Your task to perform on an android device: open app "Venmo" (install if not already installed) and enter user name: "bleedings@gmail.com" and password: "copied" Image 0: 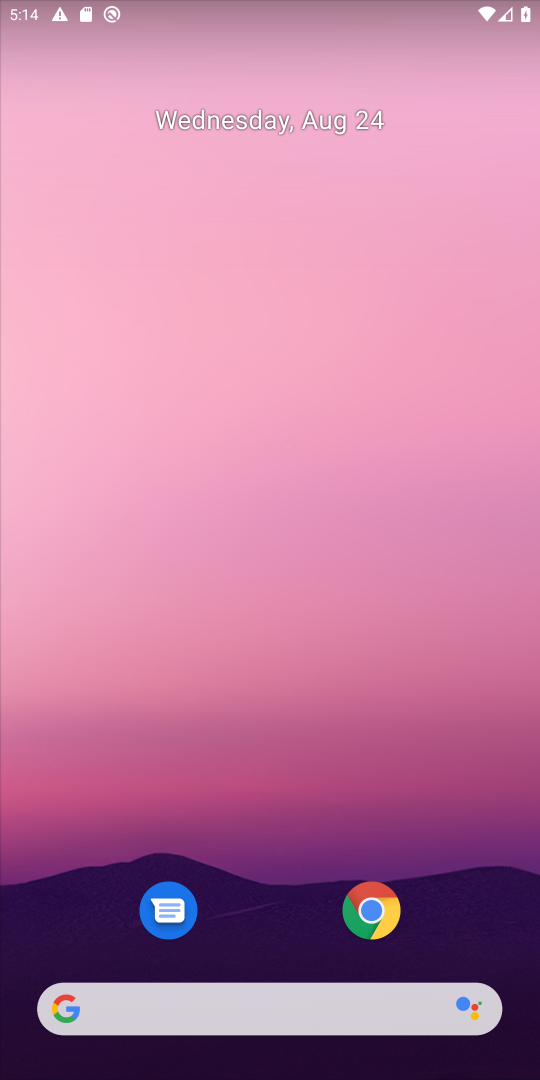
Step 0: drag from (276, 543) to (181, 136)
Your task to perform on an android device: open app "Venmo" (install if not already installed) and enter user name: "bleedings@gmail.com" and password: "copied" Image 1: 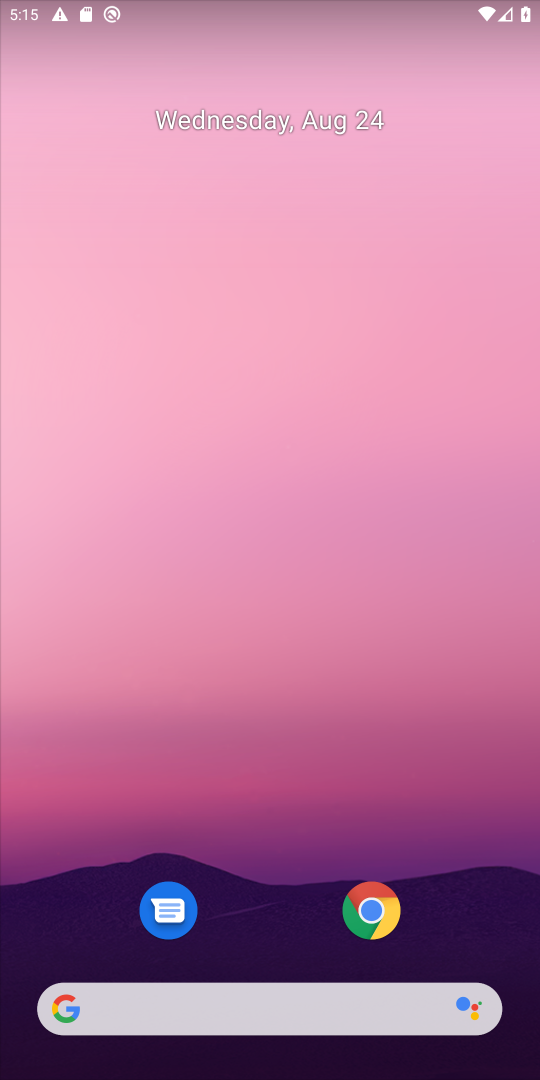
Step 1: drag from (248, 1010) to (187, 39)
Your task to perform on an android device: open app "Venmo" (install if not already installed) and enter user name: "bleedings@gmail.com" and password: "copied" Image 2: 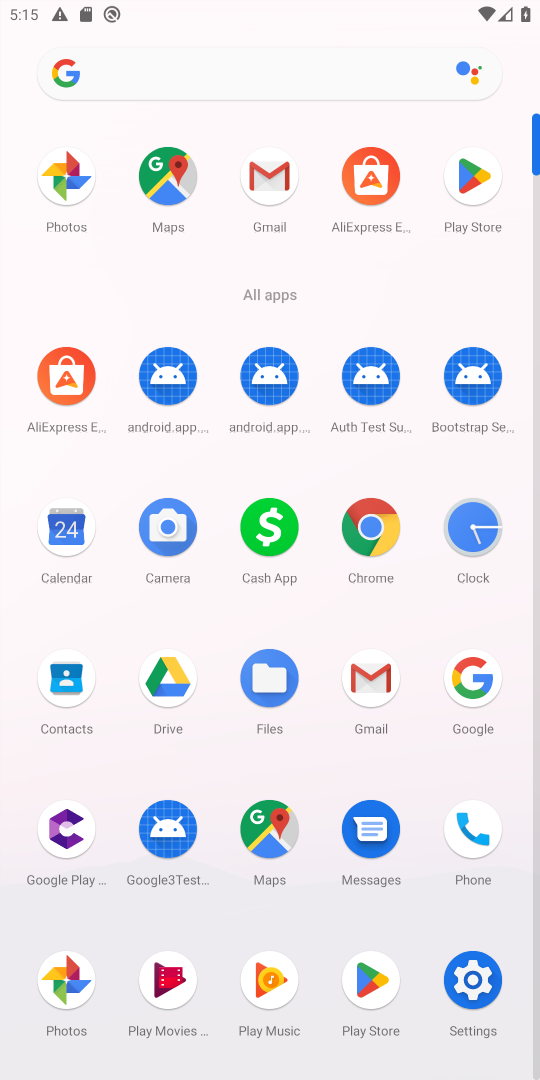
Step 2: click (478, 179)
Your task to perform on an android device: open app "Venmo" (install if not already installed) and enter user name: "bleedings@gmail.com" and password: "copied" Image 3: 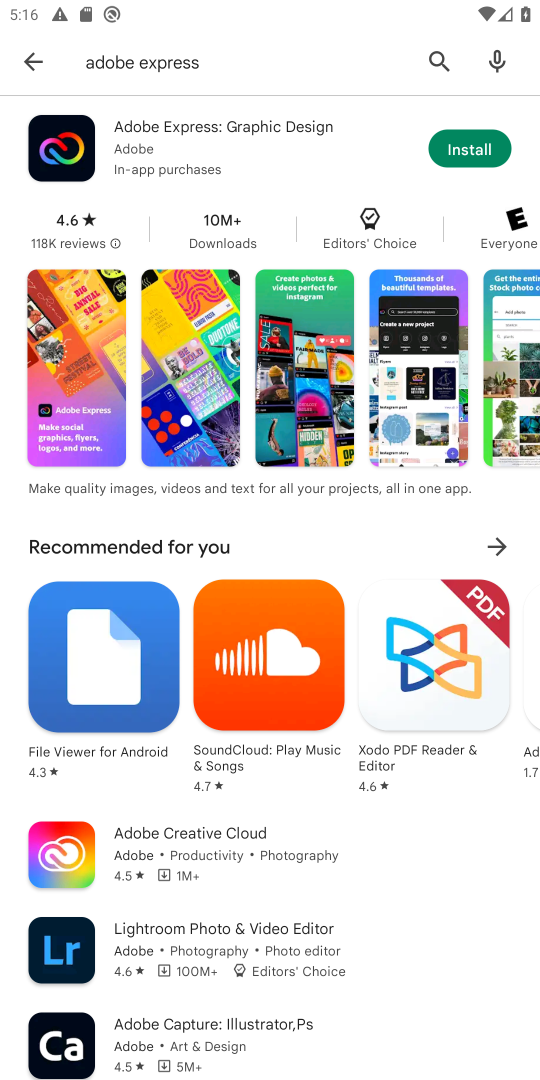
Step 3: click (432, 46)
Your task to perform on an android device: open app "Venmo" (install if not already installed) and enter user name: "bleedings@gmail.com" and password: "copied" Image 4: 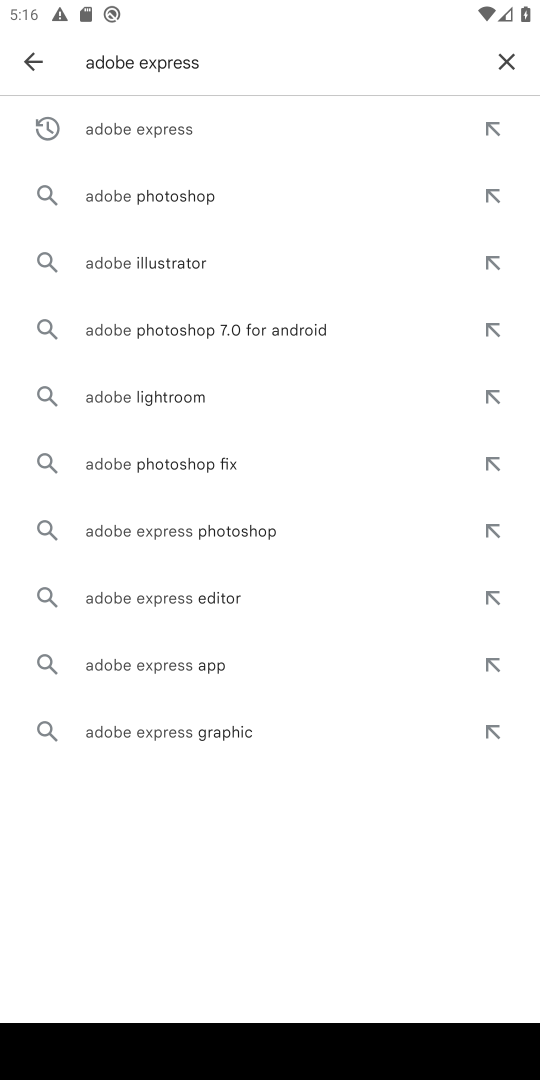
Step 4: click (515, 51)
Your task to perform on an android device: open app "Venmo" (install if not already installed) and enter user name: "bleedings@gmail.com" and password: "copied" Image 5: 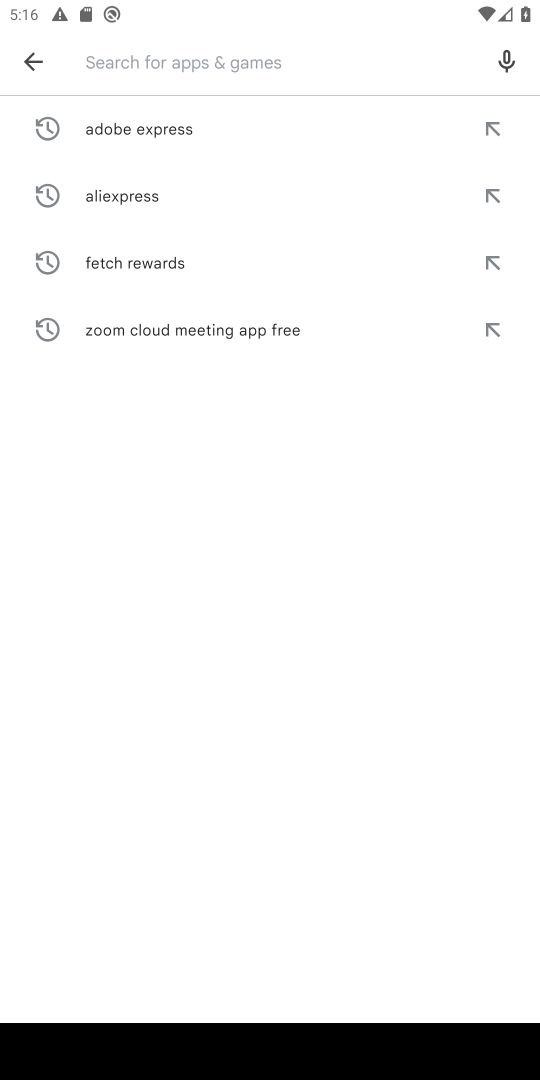
Step 5: type "venmo"
Your task to perform on an android device: open app "Venmo" (install if not already installed) and enter user name: "bleedings@gmail.com" and password: "copied" Image 6: 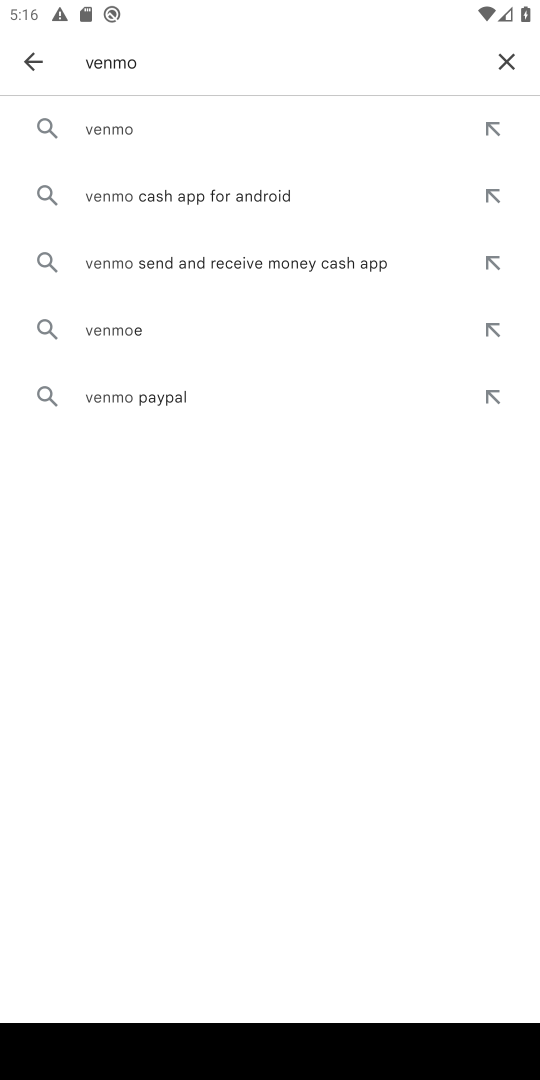
Step 6: click (146, 133)
Your task to perform on an android device: open app "Venmo" (install if not already installed) and enter user name: "bleedings@gmail.com" and password: "copied" Image 7: 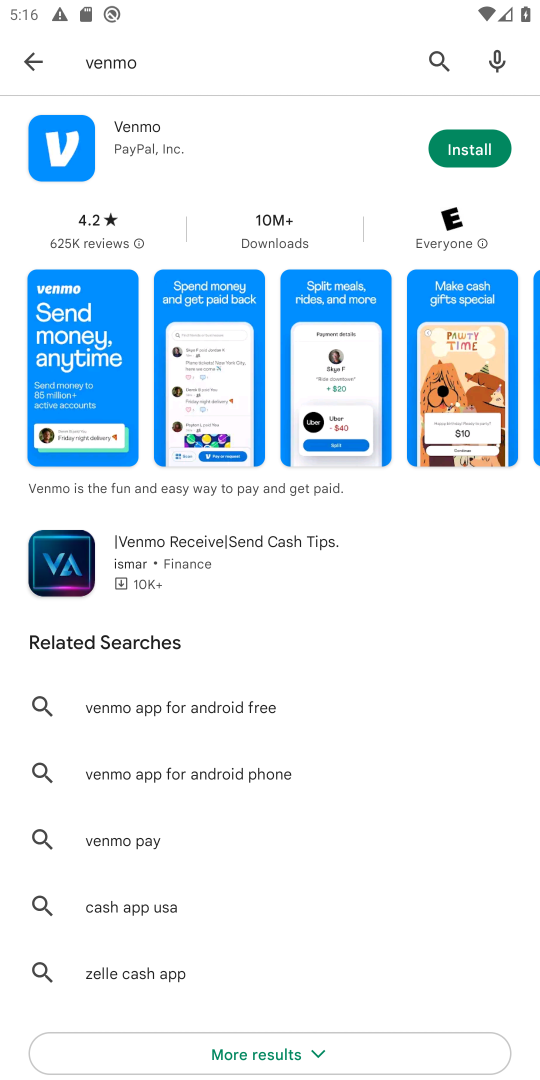
Step 7: click (455, 152)
Your task to perform on an android device: open app "Venmo" (install if not already installed) and enter user name: "bleedings@gmail.com" and password: "copied" Image 8: 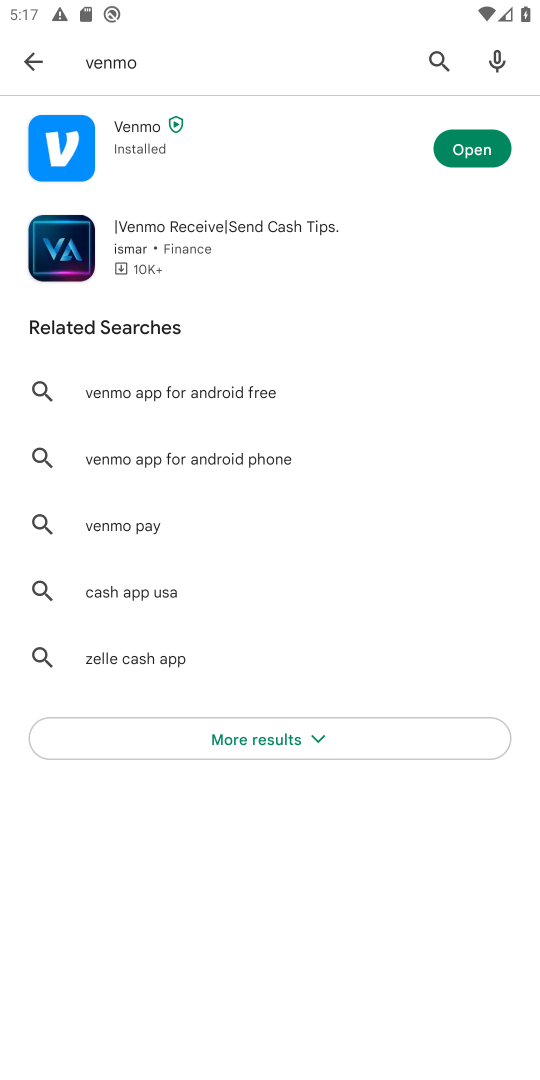
Step 8: click (459, 143)
Your task to perform on an android device: open app "Venmo" (install if not already installed) and enter user name: "bleedings@gmail.com" and password: "copied" Image 9: 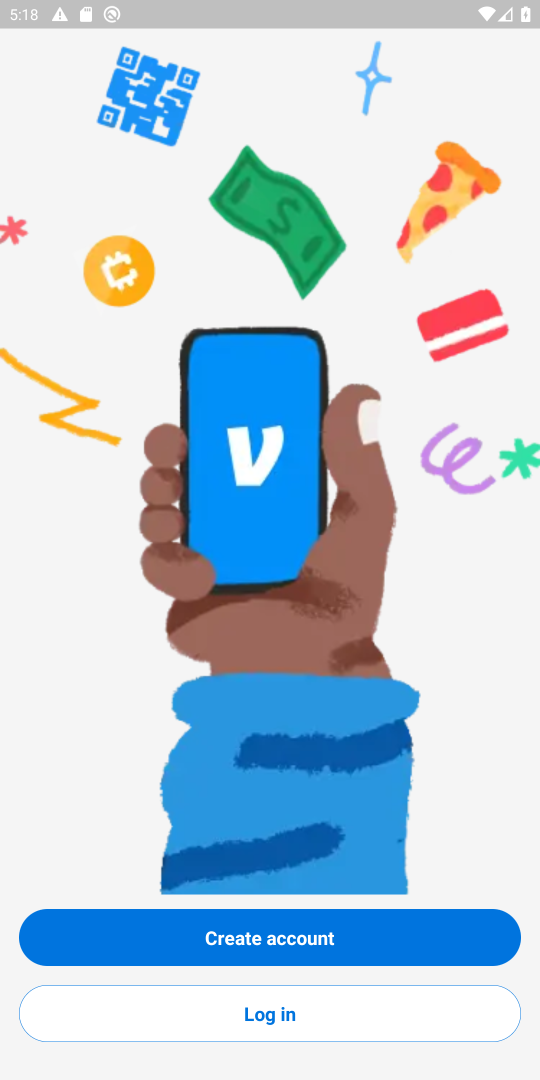
Step 9: click (386, 1023)
Your task to perform on an android device: open app "Venmo" (install if not already installed) and enter user name: "bleedings@gmail.com" and password: "copied" Image 10: 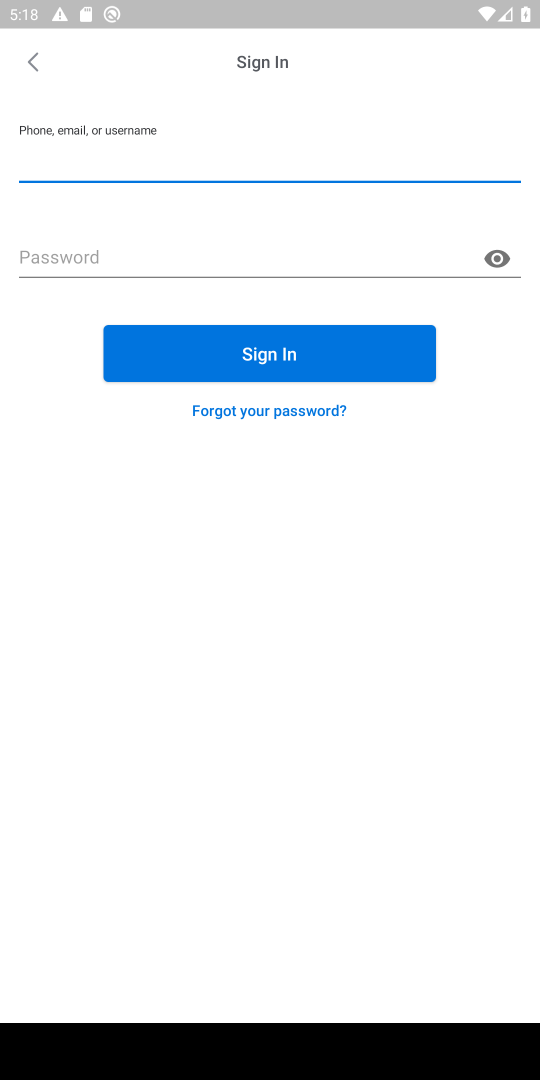
Step 10: type "bleedings@gmail.com"
Your task to perform on an android device: open app "Venmo" (install if not already installed) and enter user name: "bleedings@gmail.com" and password: "copied" Image 11: 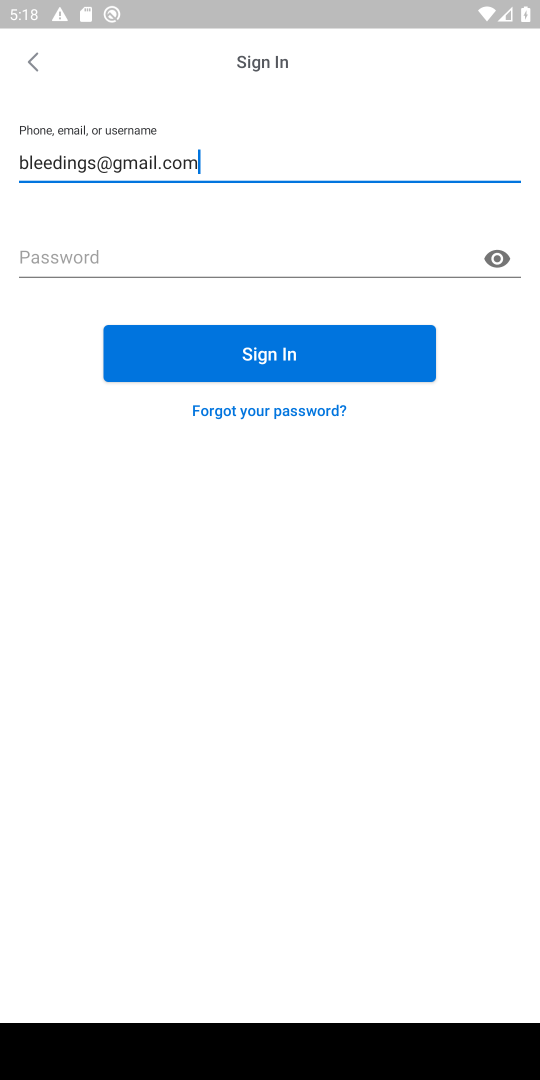
Step 11: click (121, 263)
Your task to perform on an android device: open app "Venmo" (install if not already installed) and enter user name: "bleedings@gmail.com" and password: "copied" Image 12: 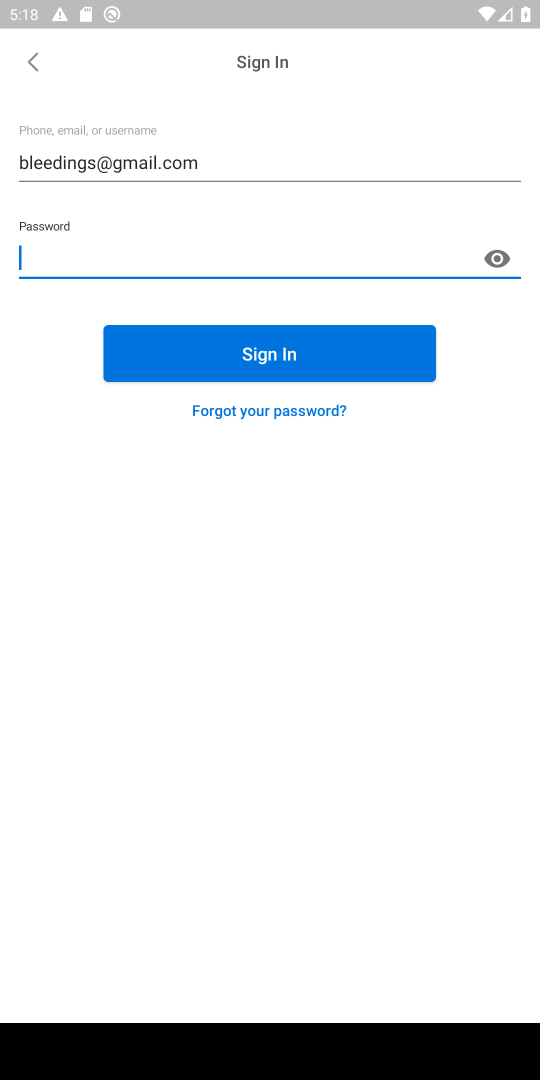
Step 12: type "copied"
Your task to perform on an android device: open app "Venmo" (install if not already installed) and enter user name: "bleedings@gmail.com" and password: "copied" Image 13: 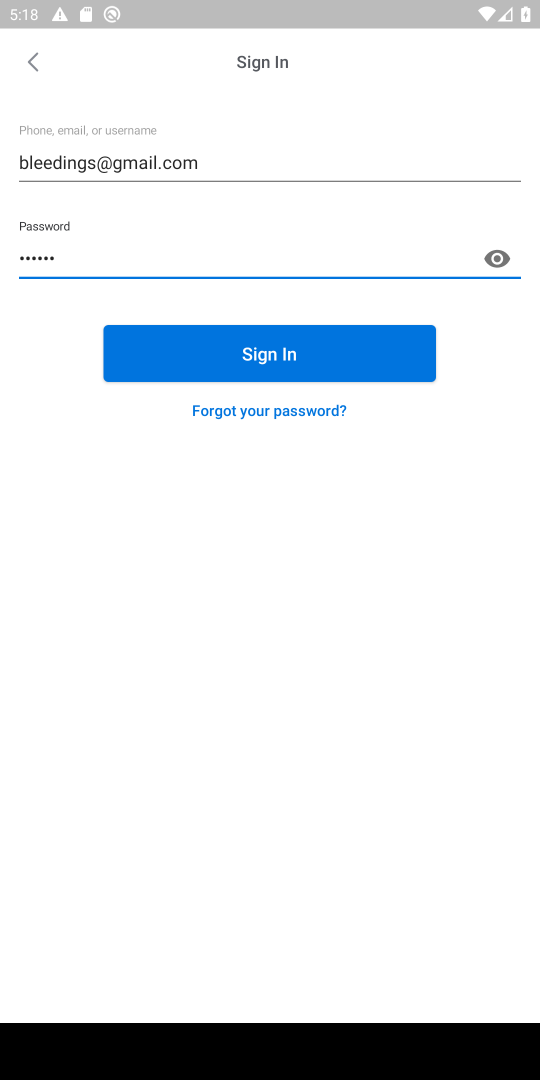
Step 13: task complete